Your task to perform on an android device: open a bookmark in the chrome app Image 0: 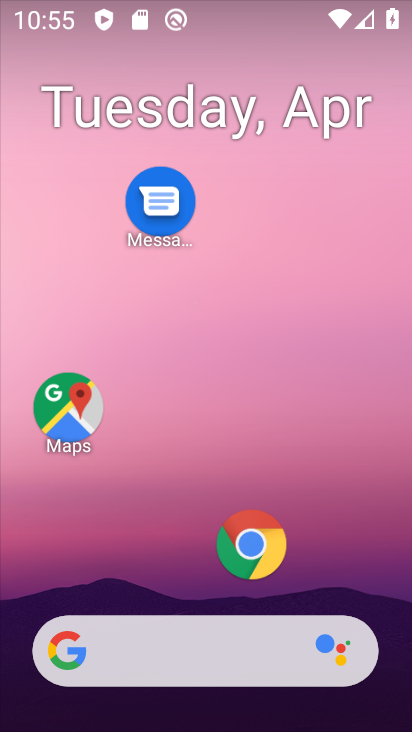
Step 0: click (272, 540)
Your task to perform on an android device: open a bookmark in the chrome app Image 1: 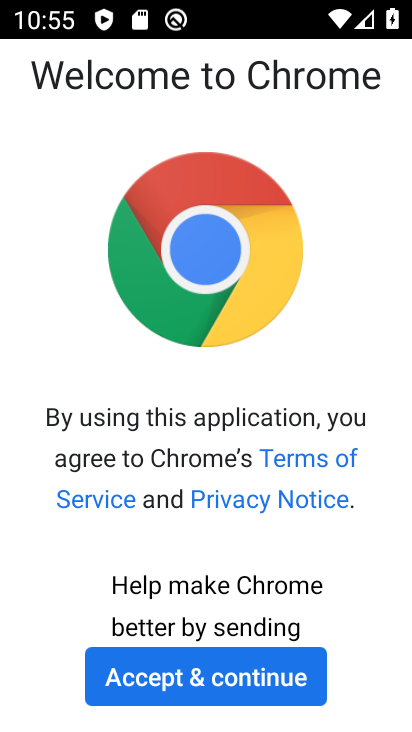
Step 1: click (250, 678)
Your task to perform on an android device: open a bookmark in the chrome app Image 2: 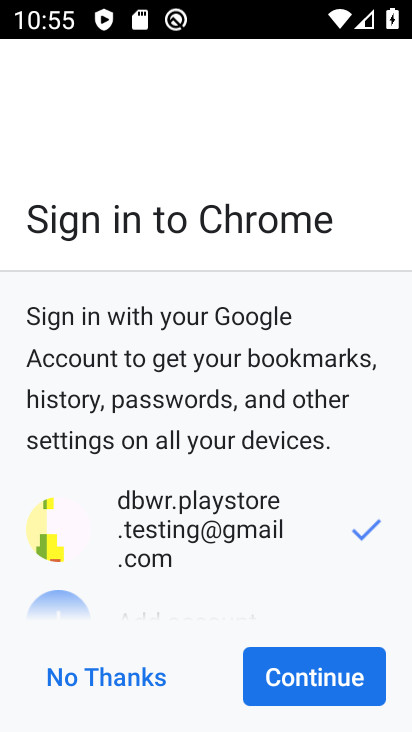
Step 2: click (303, 669)
Your task to perform on an android device: open a bookmark in the chrome app Image 3: 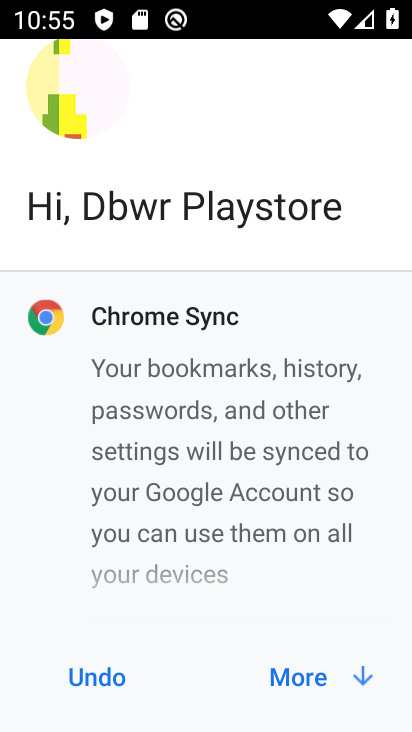
Step 3: click (303, 669)
Your task to perform on an android device: open a bookmark in the chrome app Image 4: 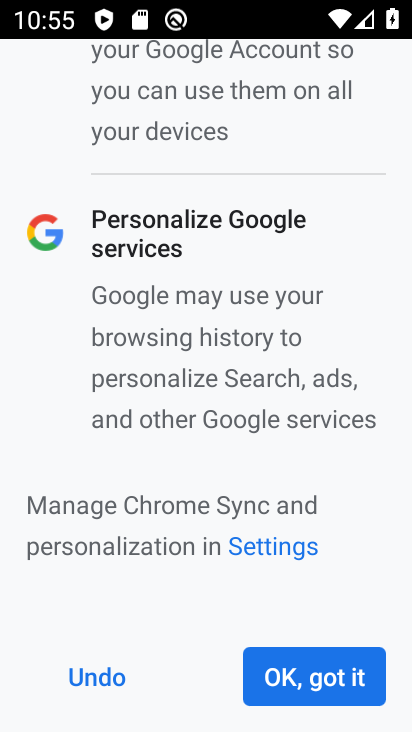
Step 4: click (303, 668)
Your task to perform on an android device: open a bookmark in the chrome app Image 5: 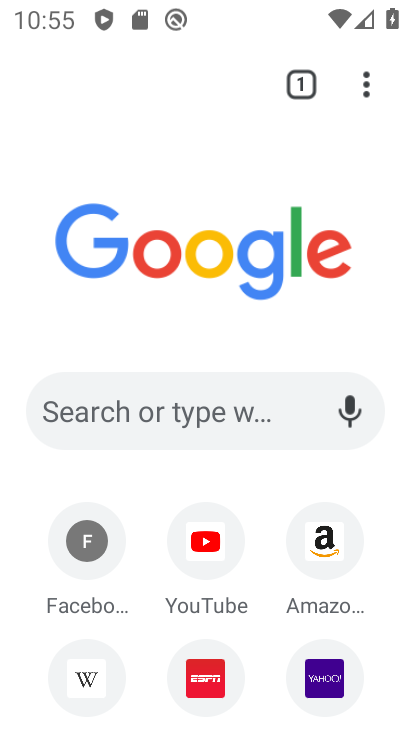
Step 5: click (210, 671)
Your task to perform on an android device: open a bookmark in the chrome app Image 6: 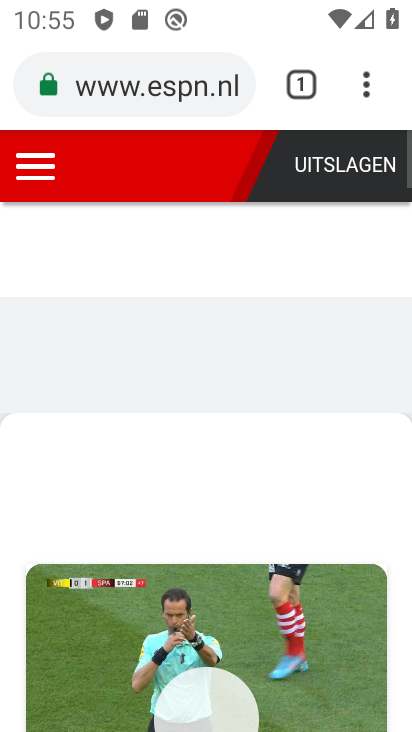
Step 6: task complete